Your task to perform on an android device: Open calendar and show me the second week of next month Image 0: 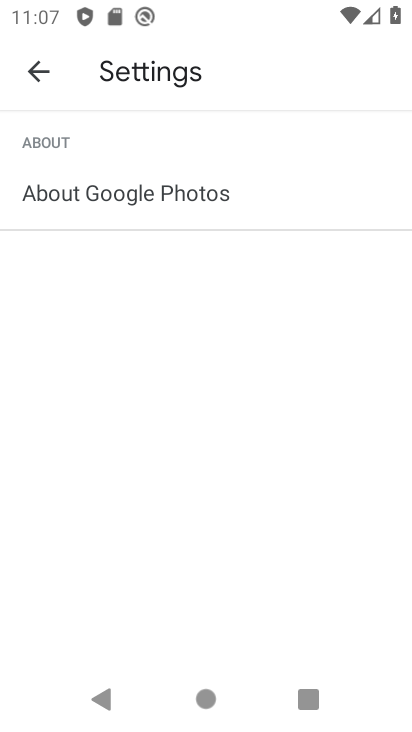
Step 0: press home button
Your task to perform on an android device: Open calendar and show me the second week of next month Image 1: 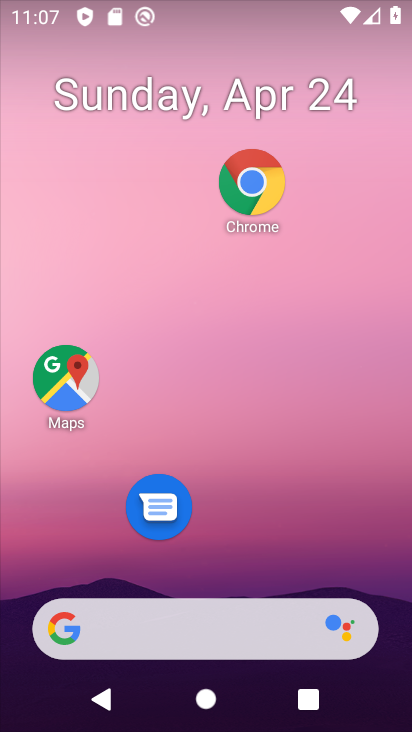
Step 1: drag from (230, 722) to (227, 183)
Your task to perform on an android device: Open calendar and show me the second week of next month Image 2: 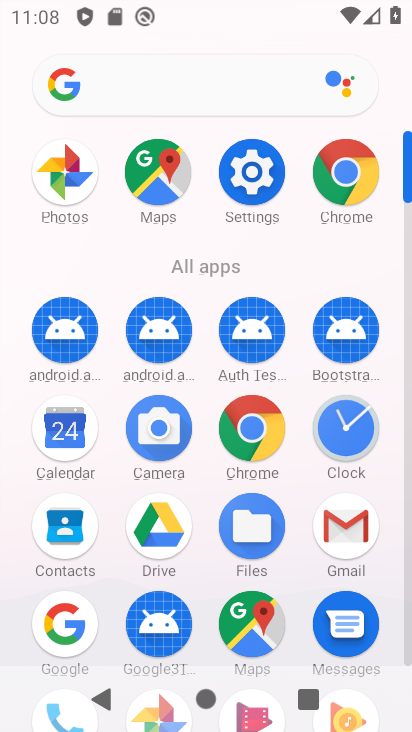
Step 2: click (68, 432)
Your task to perform on an android device: Open calendar and show me the second week of next month Image 3: 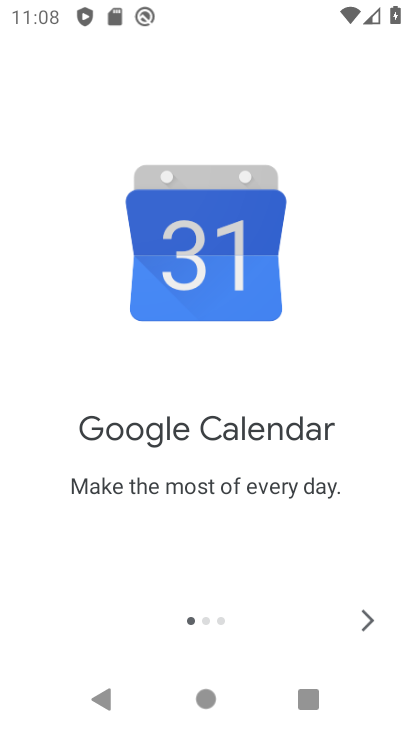
Step 3: click (370, 620)
Your task to perform on an android device: Open calendar and show me the second week of next month Image 4: 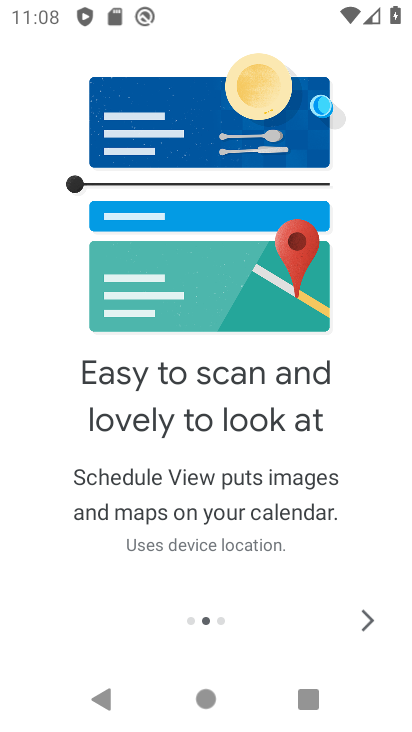
Step 4: click (370, 620)
Your task to perform on an android device: Open calendar and show me the second week of next month Image 5: 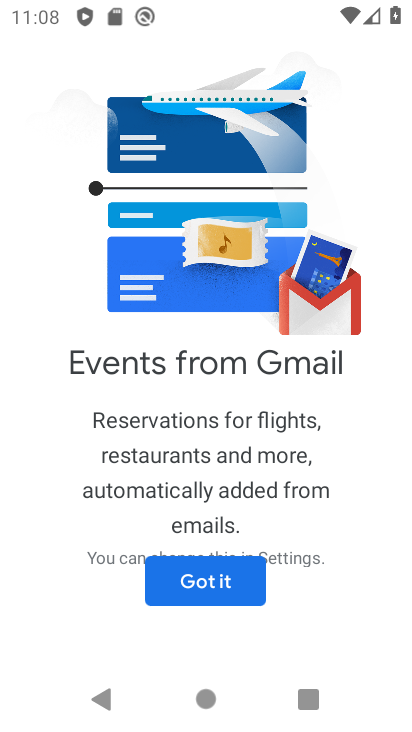
Step 5: click (223, 575)
Your task to perform on an android device: Open calendar and show me the second week of next month Image 6: 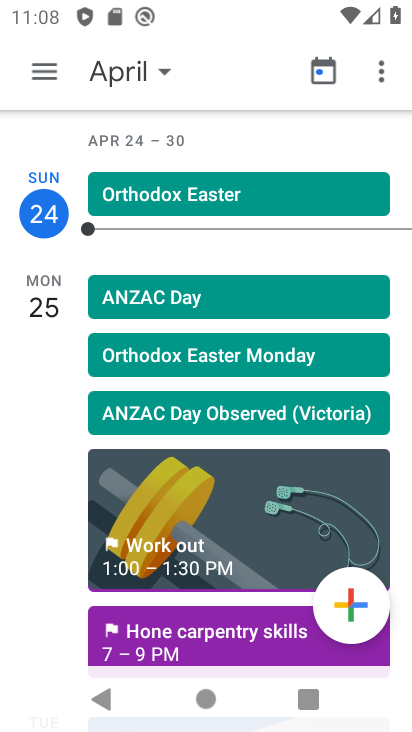
Step 6: click (124, 69)
Your task to perform on an android device: Open calendar and show me the second week of next month Image 7: 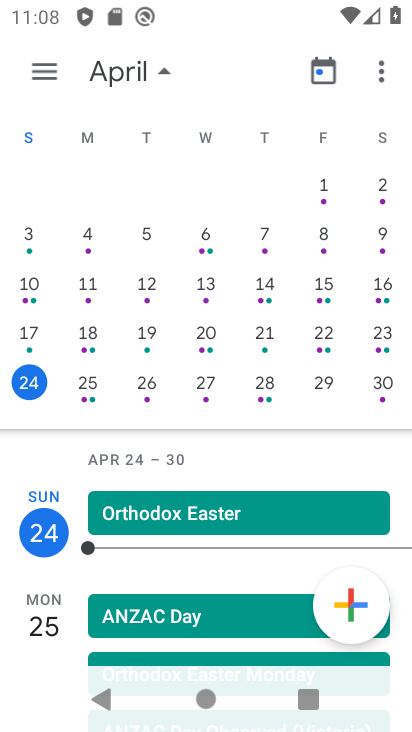
Step 7: drag from (382, 306) to (5, 301)
Your task to perform on an android device: Open calendar and show me the second week of next month Image 8: 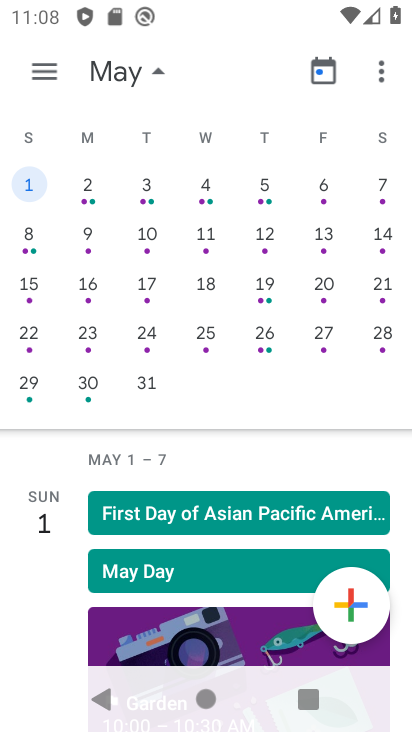
Step 8: click (90, 235)
Your task to perform on an android device: Open calendar and show me the second week of next month Image 9: 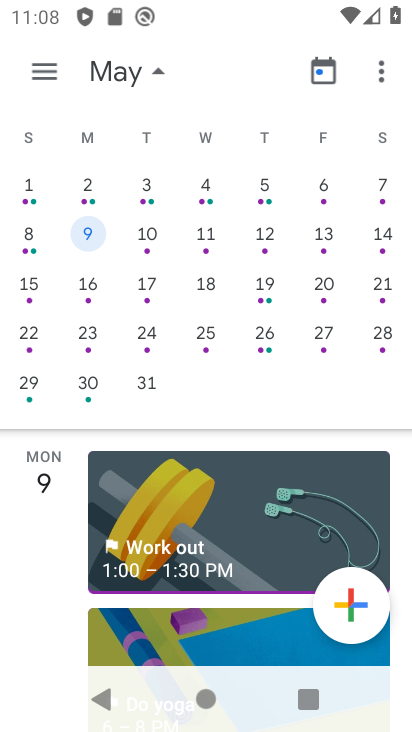
Step 9: task complete